Your task to perform on an android device: Add "bose soundsport free" to the cart on newegg.com Image 0: 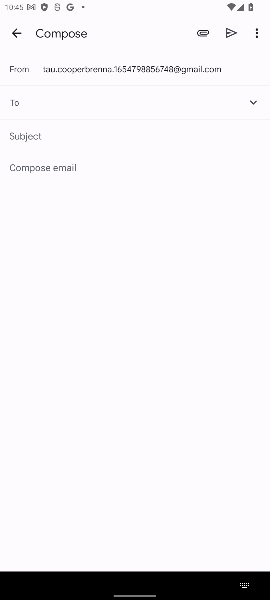
Step 0: press home button
Your task to perform on an android device: Add "bose soundsport free" to the cart on newegg.com Image 1: 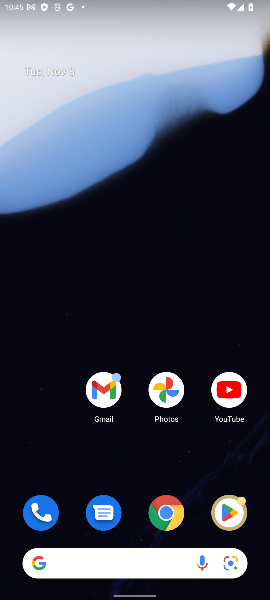
Step 1: click (163, 519)
Your task to perform on an android device: Add "bose soundsport free" to the cart on newegg.com Image 2: 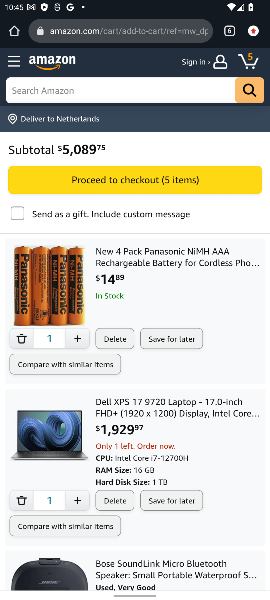
Step 2: click (229, 32)
Your task to perform on an android device: Add "bose soundsport free" to the cart on newegg.com Image 3: 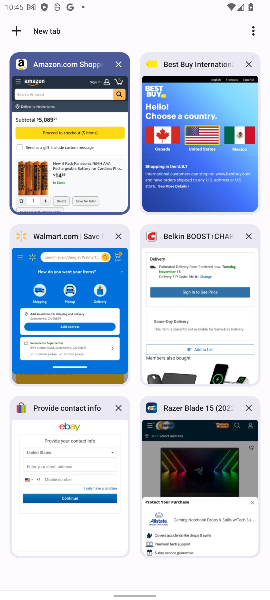
Step 3: click (162, 447)
Your task to perform on an android device: Add "bose soundsport free" to the cart on newegg.com Image 4: 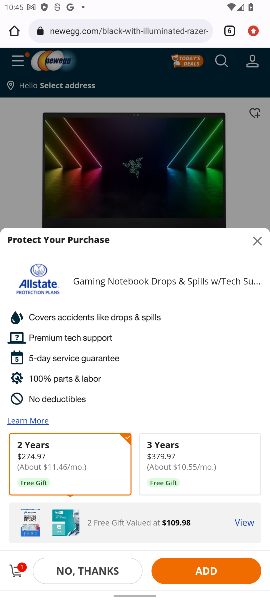
Step 4: click (255, 239)
Your task to perform on an android device: Add "bose soundsport free" to the cart on newegg.com Image 5: 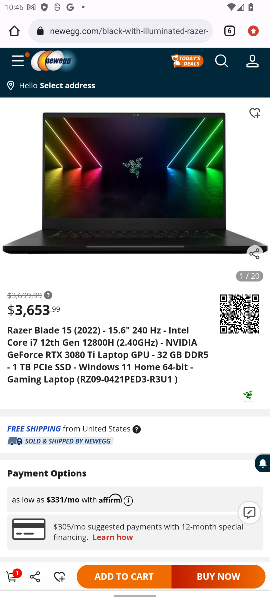
Step 5: click (221, 61)
Your task to perform on an android device: Add "bose soundsport free" to the cart on newegg.com Image 6: 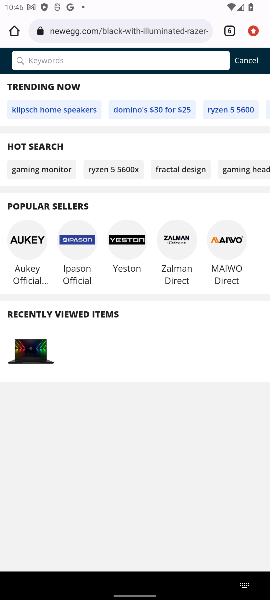
Step 6: type "bose soundsport free"
Your task to perform on an android device: Add "bose soundsport free" to the cart on newegg.com Image 7: 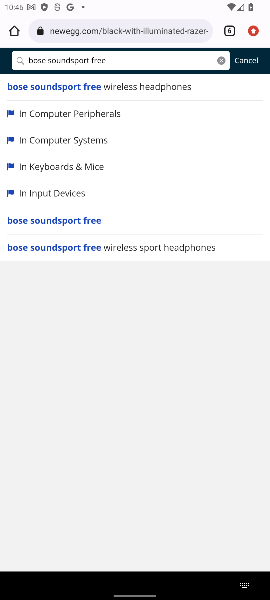
Step 7: click (46, 86)
Your task to perform on an android device: Add "bose soundsport free" to the cart on newegg.com Image 8: 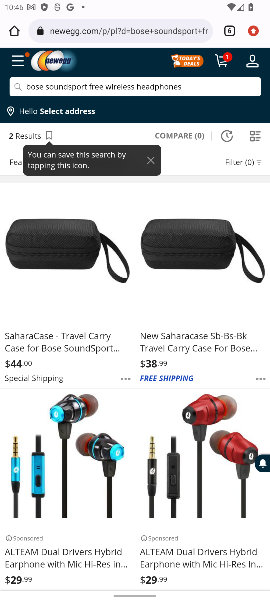
Step 8: drag from (143, 515) to (166, 298)
Your task to perform on an android device: Add "bose soundsport free" to the cart on newegg.com Image 9: 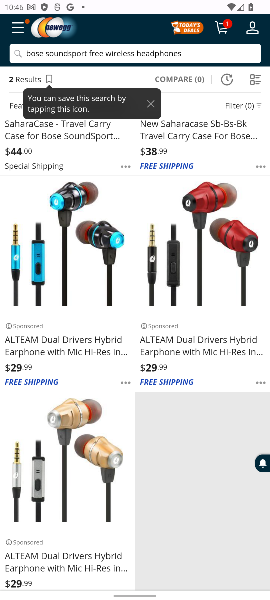
Step 9: drag from (191, 221) to (228, 504)
Your task to perform on an android device: Add "bose soundsport free" to the cart on newegg.com Image 10: 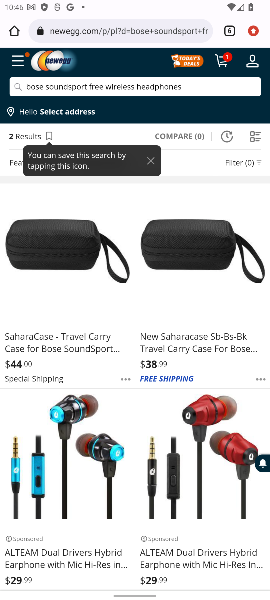
Step 10: click (82, 345)
Your task to perform on an android device: Add "bose soundsport free" to the cart on newegg.com Image 11: 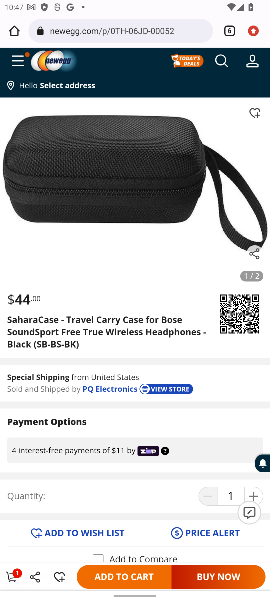
Step 11: click (139, 573)
Your task to perform on an android device: Add "bose soundsport free" to the cart on newegg.com Image 12: 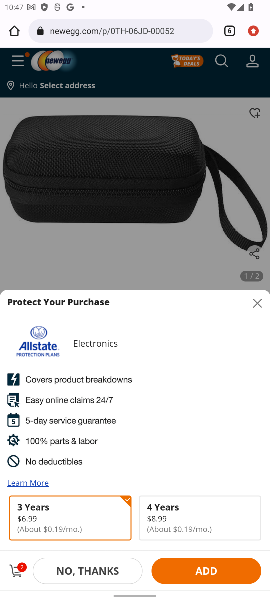
Step 12: task complete